Your task to perform on an android device: Go to sound settings Image 0: 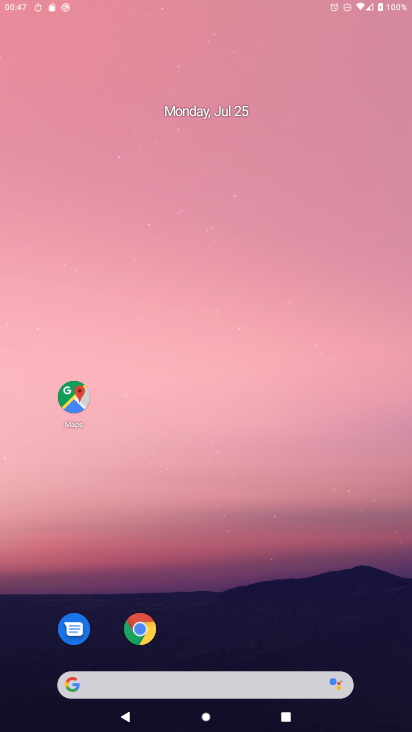
Step 0: drag from (180, 597) to (252, 63)
Your task to perform on an android device: Go to sound settings Image 1: 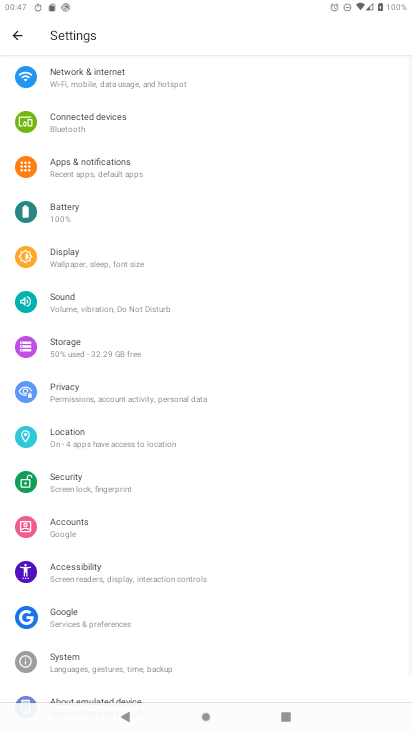
Step 1: click (20, 294)
Your task to perform on an android device: Go to sound settings Image 2: 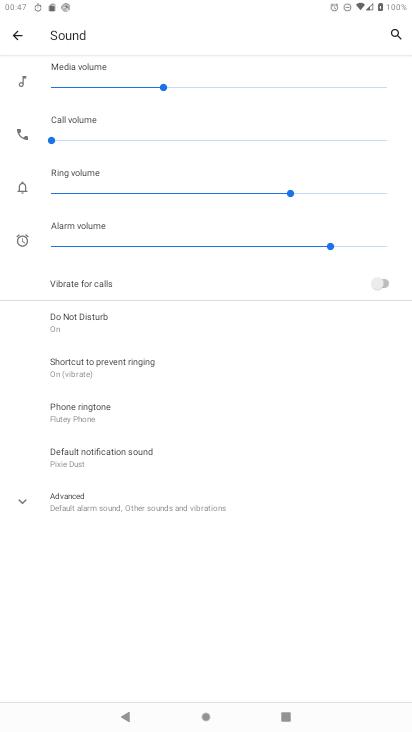
Step 2: drag from (197, 508) to (279, 197)
Your task to perform on an android device: Go to sound settings Image 3: 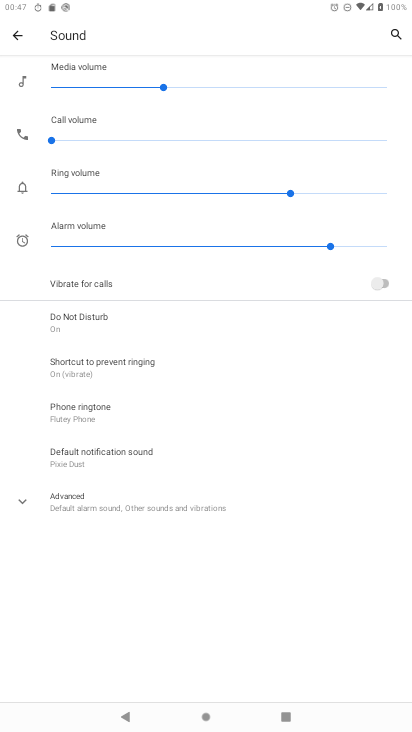
Step 3: click (287, 291)
Your task to perform on an android device: Go to sound settings Image 4: 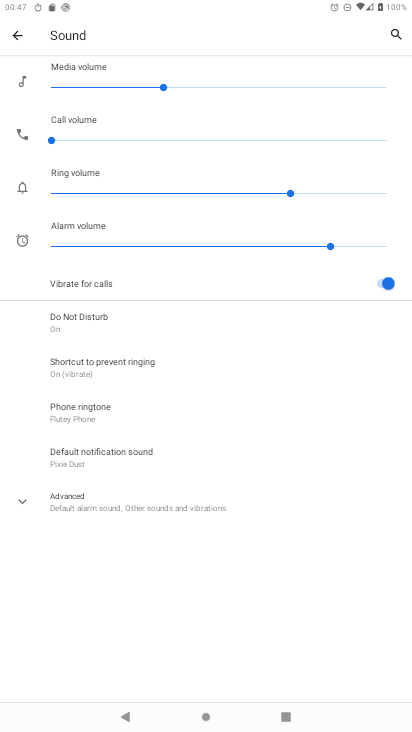
Step 4: task complete